Your task to perform on an android device: See recent photos Image 0: 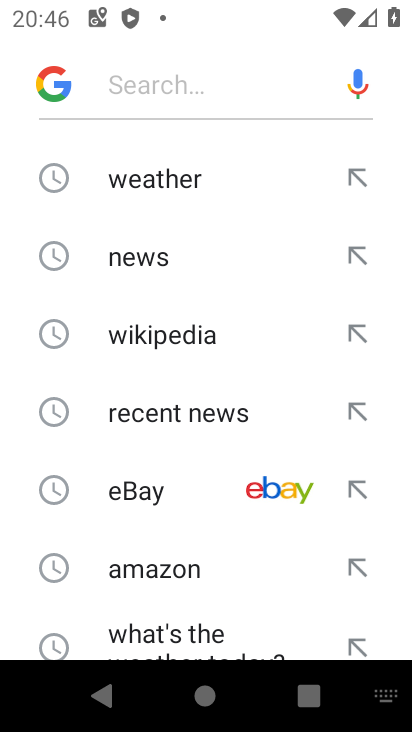
Step 0: press home button
Your task to perform on an android device: See recent photos Image 1: 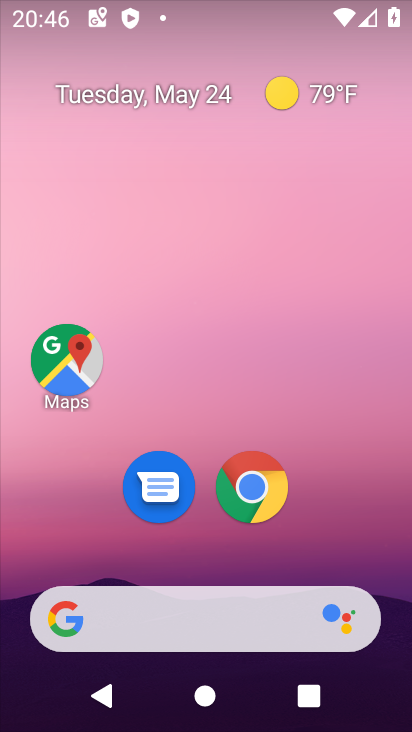
Step 1: drag from (377, 557) to (374, 109)
Your task to perform on an android device: See recent photos Image 2: 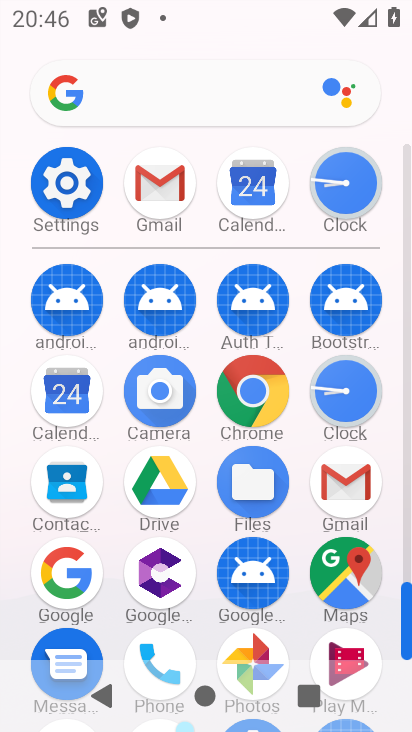
Step 2: drag from (407, 609) to (392, 731)
Your task to perform on an android device: See recent photos Image 3: 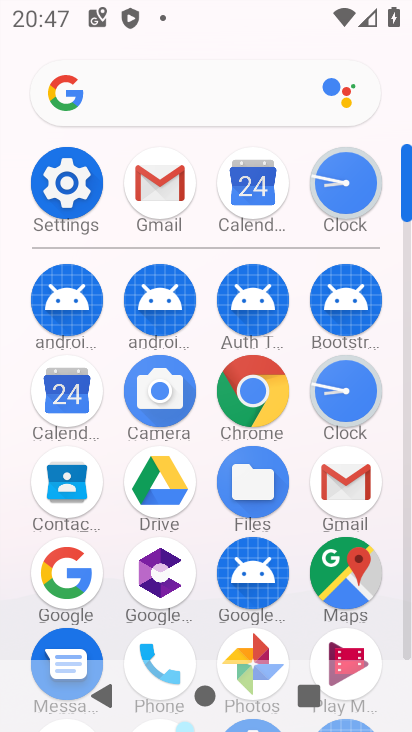
Step 3: click (409, 655)
Your task to perform on an android device: See recent photos Image 4: 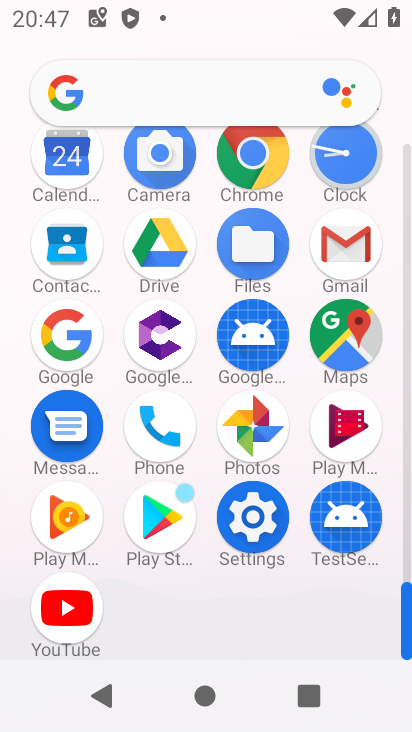
Step 4: click (242, 405)
Your task to perform on an android device: See recent photos Image 5: 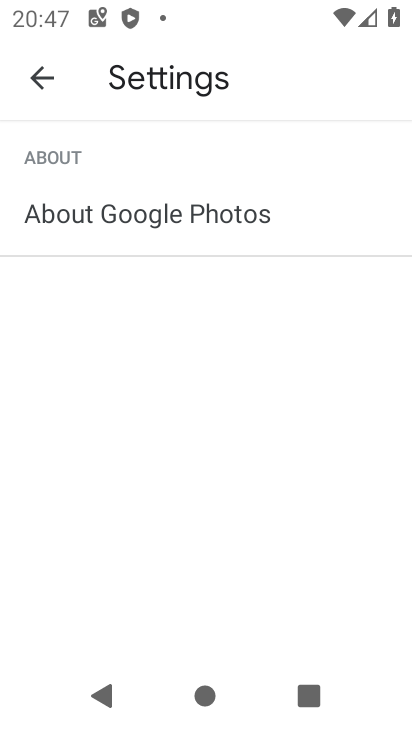
Step 5: click (31, 75)
Your task to perform on an android device: See recent photos Image 6: 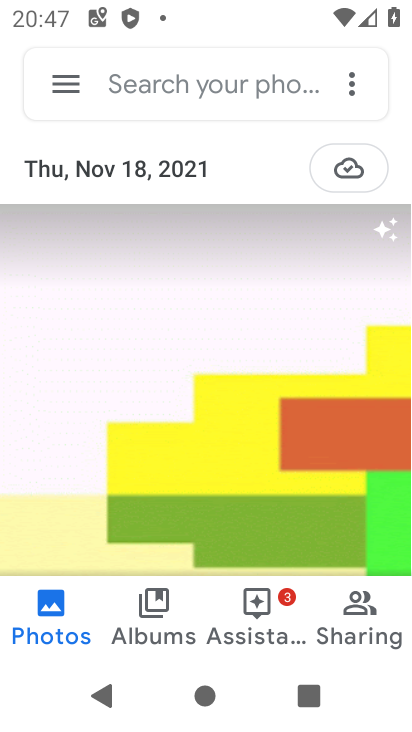
Step 6: click (38, 635)
Your task to perform on an android device: See recent photos Image 7: 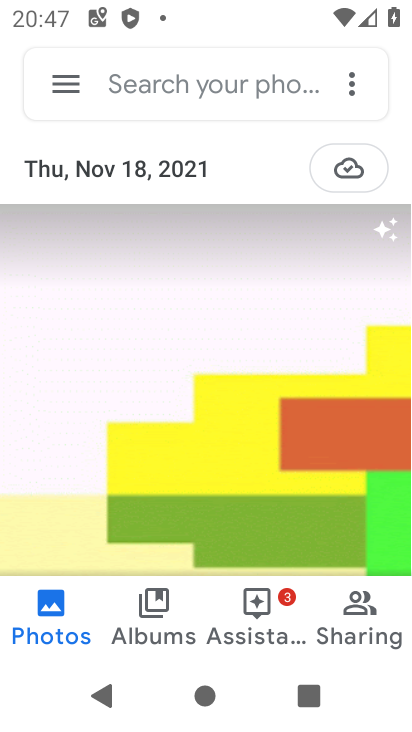
Step 7: task complete